Your task to perform on an android device: Go to Yahoo.com Image 0: 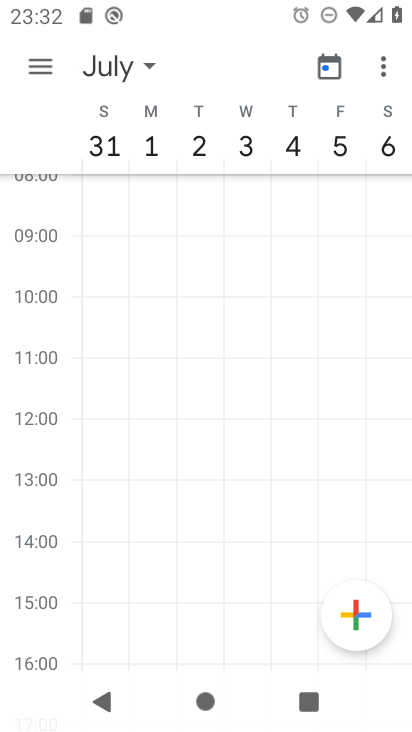
Step 0: press home button
Your task to perform on an android device: Go to Yahoo.com Image 1: 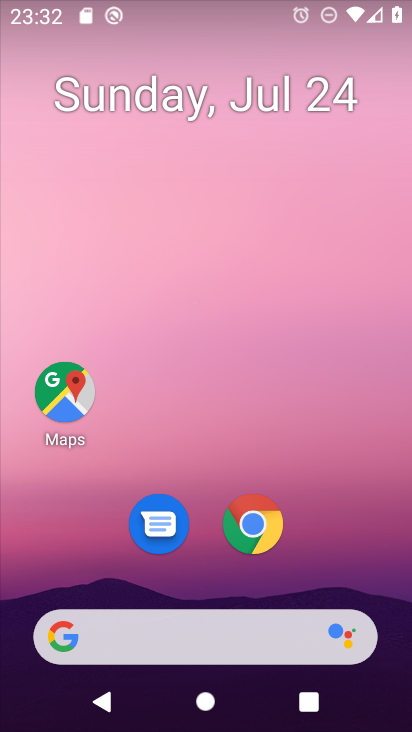
Step 1: click (248, 529)
Your task to perform on an android device: Go to Yahoo.com Image 2: 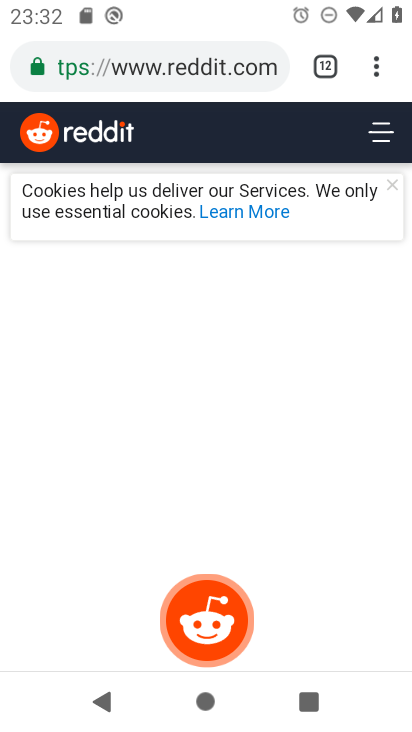
Step 2: drag from (376, 63) to (260, 129)
Your task to perform on an android device: Go to Yahoo.com Image 3: 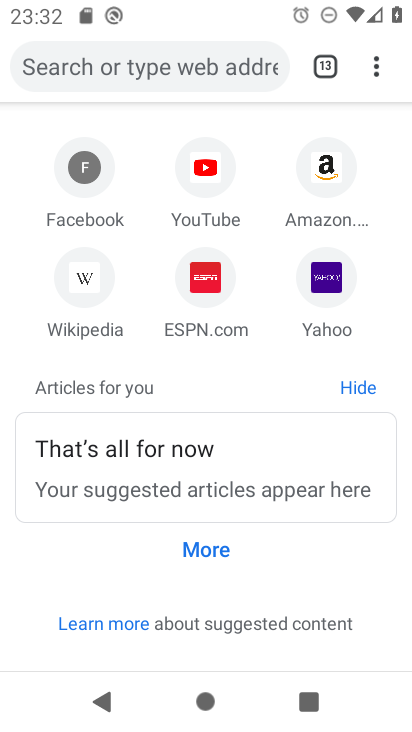
Step 3: click (335, 279)
Your task to perform on an android device: Go to Yahoo.com Image 4: 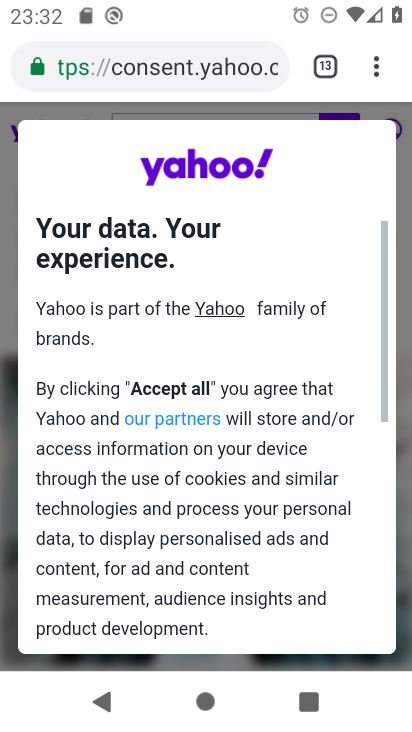
Step 4: drag from (251, 545) to (350, 183)
Your task to perform on an android device: Go to Yahoo.com Image 5: 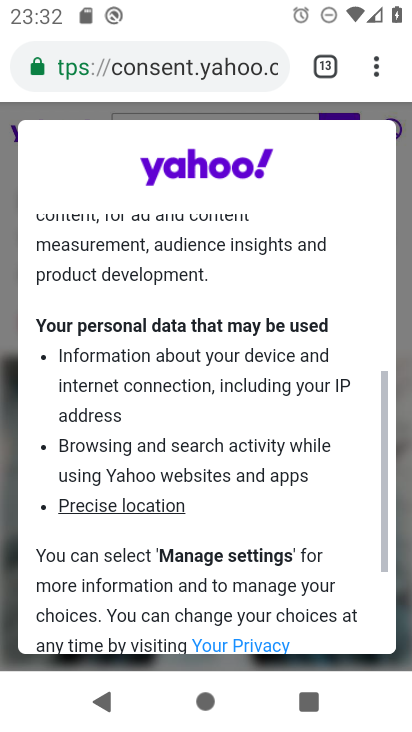
Step 5: drag from (198, 539) to (276, 401)
Your task to perform on an android device: Go to Yahoo.com Image 6: 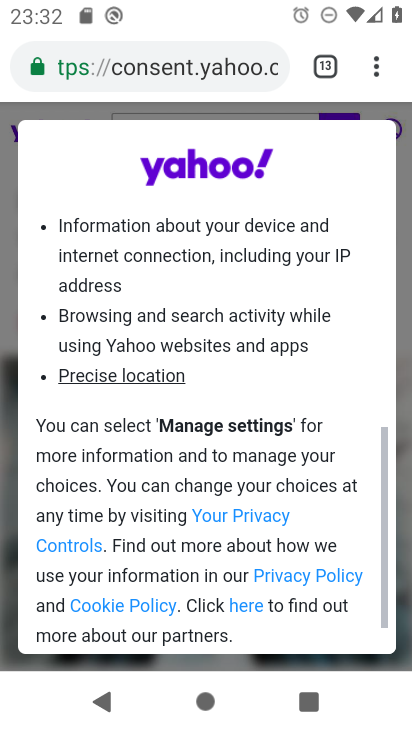
Step 6: drag from (189, 566) to (347, 259)
Your task to perform on an android device: Go to Yahoo.com Image 7: 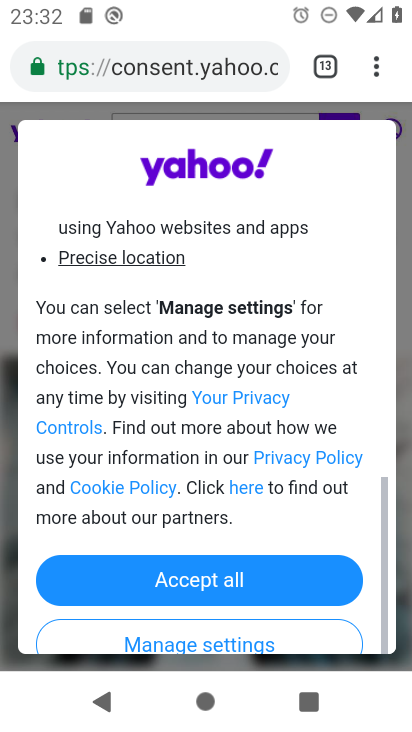
Step 7: click (214, 572)
Your task to perform on an android device: Go to Yahoo.com Image 8: 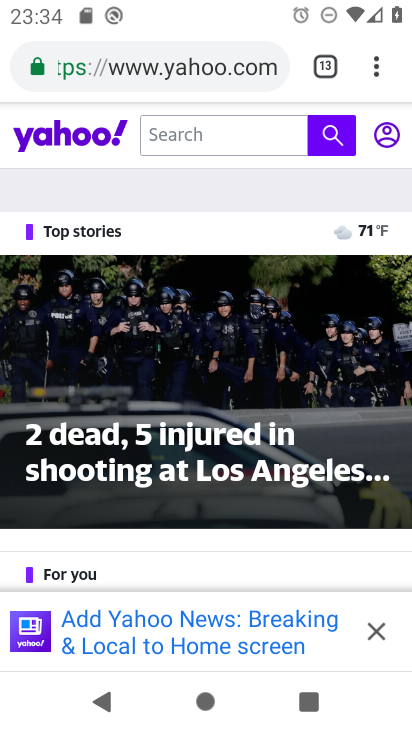
Step 8: task complete